Your task to perform on an android device: Open the map Image 0: 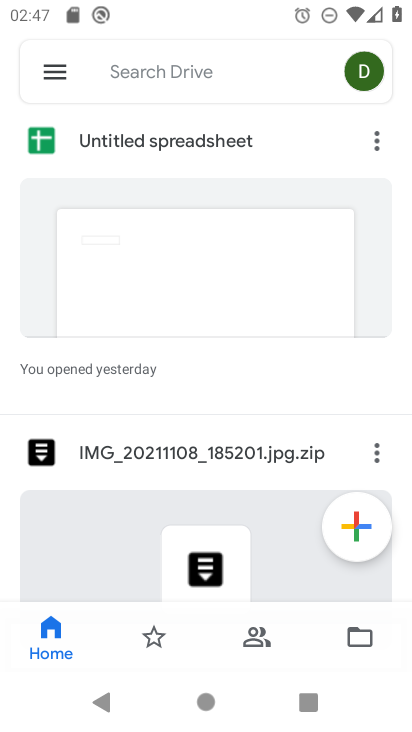
Step 0: press home button
Your task to perform on an android device: Open the map Image 1: 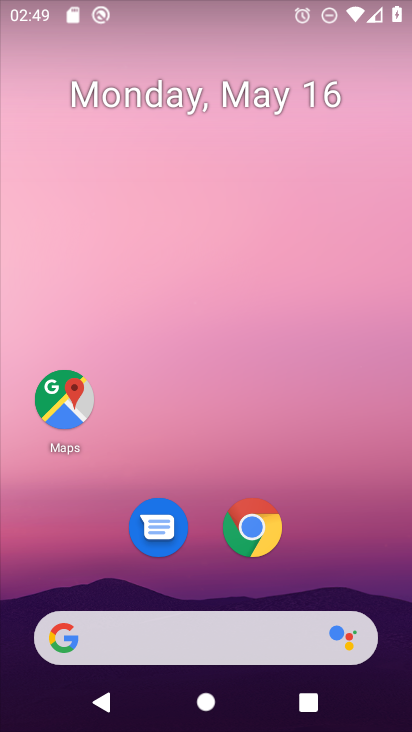
Step 1: click (67, 390)
Your task to perform on an android device: Open the map Image 2: 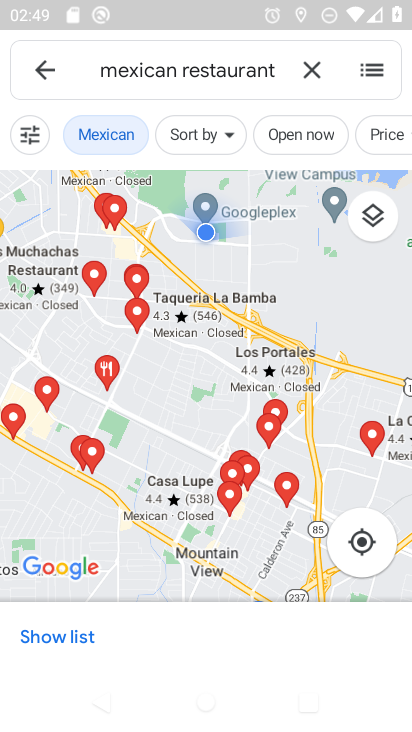
Step 2: task complete